Your task to perform on an android device: find photos in the google photos app Image 0: 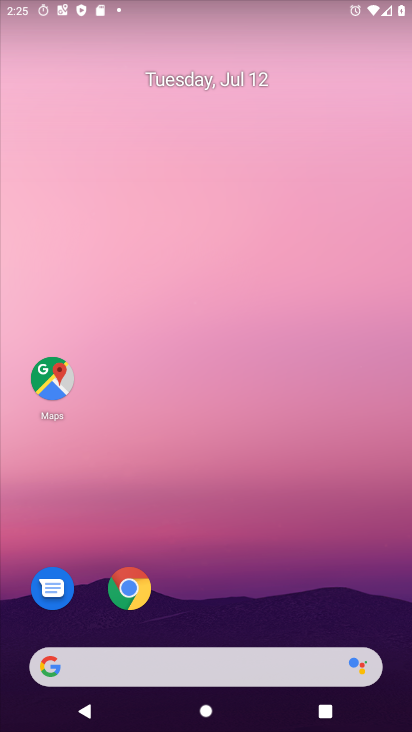
Step 0: click (247, 153)
Your task to perform on an android device: find photos in the google photos app Image 1: 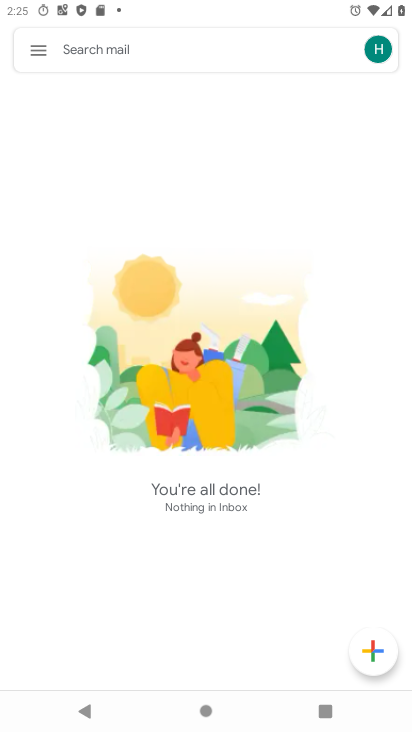
Step 1: press home button
Your task to perform on an android device: find photos in the google photos app Image 2: 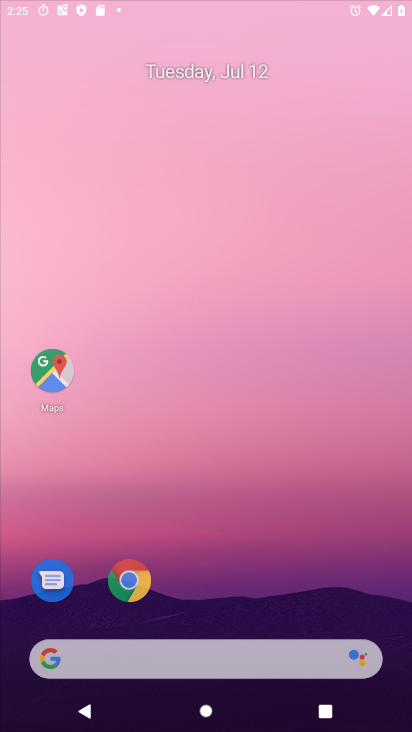
Step 2: drag from (231, 550) to (293, 97)
Your task to perform on an android device: find photos in the google photos app Image 3: 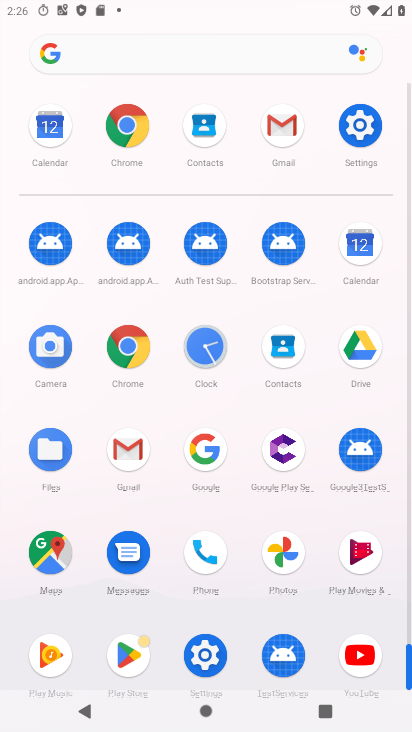
Step 3: click (290, 558)
Your task to perform on an android device: find photos in the google photos app Image 4: 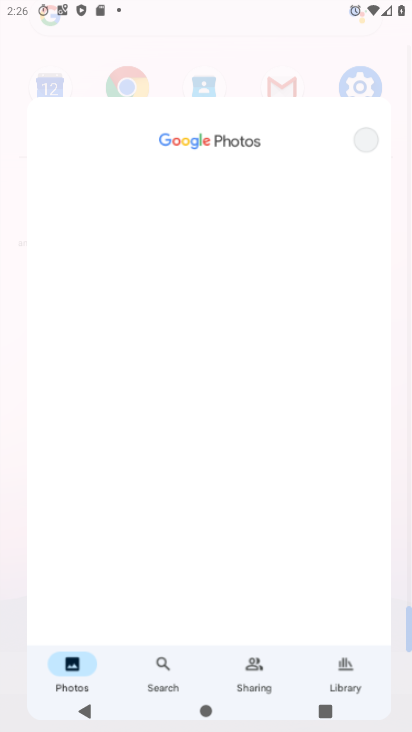
Step 4: click (289, 557)
Your task to perform on an android device: find photos in the google photos app Image 5: 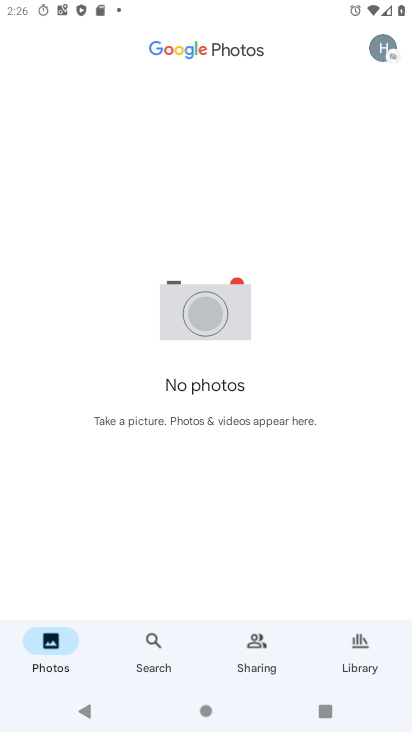
Step 5: drag from (235, 538) to (282, 331)
Your task to perform on an android device: find photos in the google photos app Image 6: 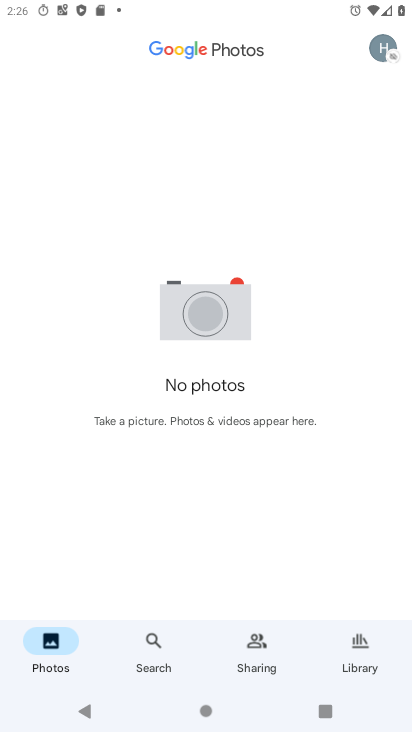
Step 6: drag from (225, 547) to (254, 254)
Your task to perform on an android device: find photos in the google photos app Image 7: 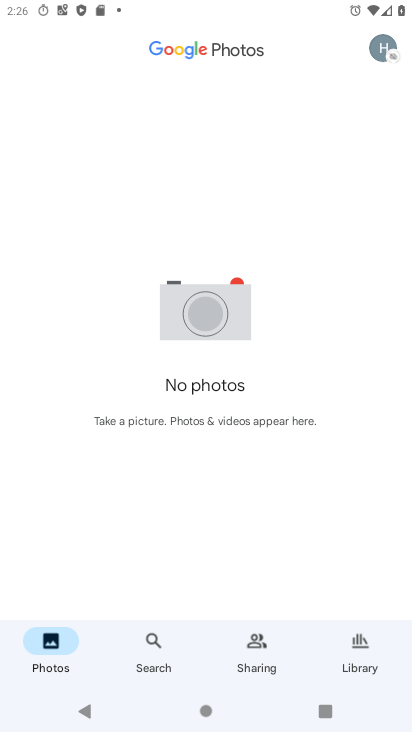
Step 7: drag from (191, 372) to (199, 259)
Your task to perform on an android device: find photos in the google photos app Image 8: 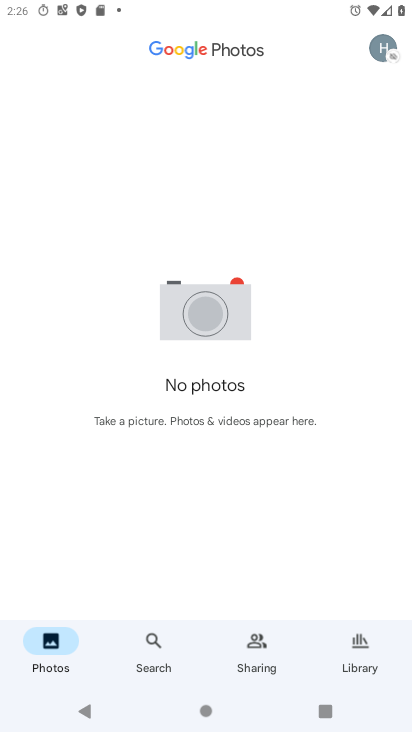
Step 8: click (218, 203)
Your task to perform on an android device: find photos in the google photos app Image 9: 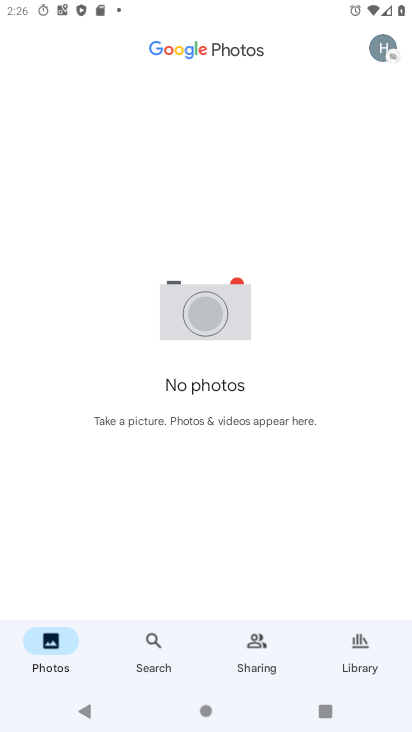
Step 9: drag from (162, 558) to (188, 358)
Your task to perform on an android device: find photos in the google photos app Image 10: 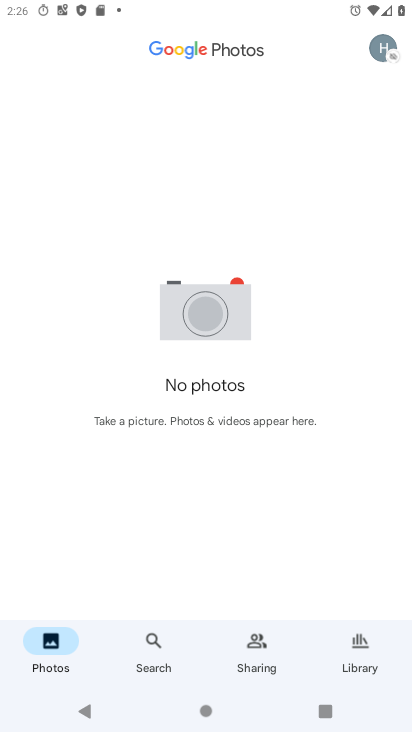
Step 10: click (46, 655)
Your task to perform on an android device: find photos in the google photos app Image 11: 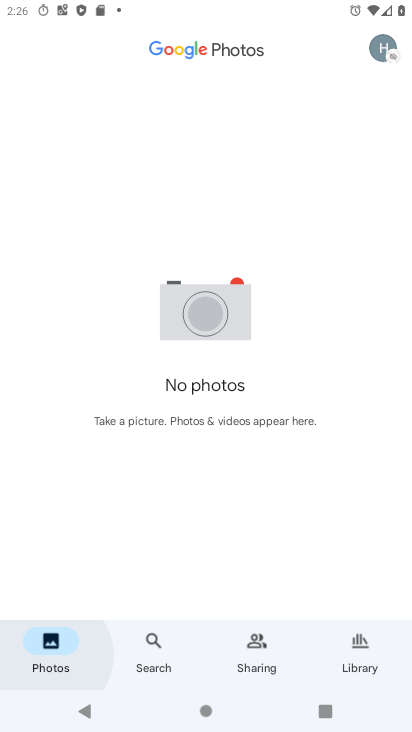
Step 11: drag from (115, 518) to (232, 266)
Your task to perform on an android device: find photos in the google photos app Image 12: 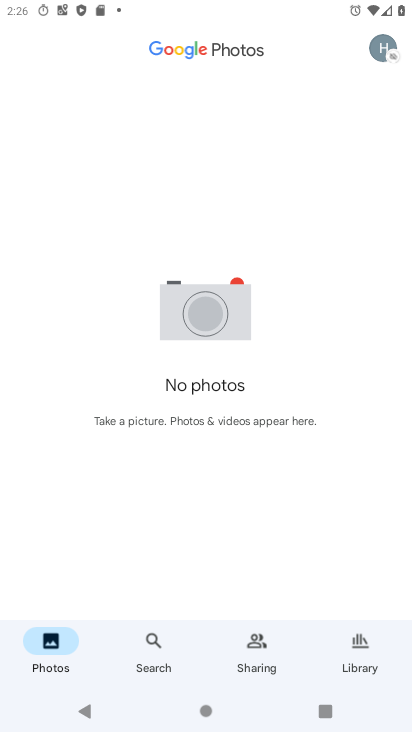
Step 12: click (287, 188)
Your task to perform on an android device: find photos in the google photos app Image 13: 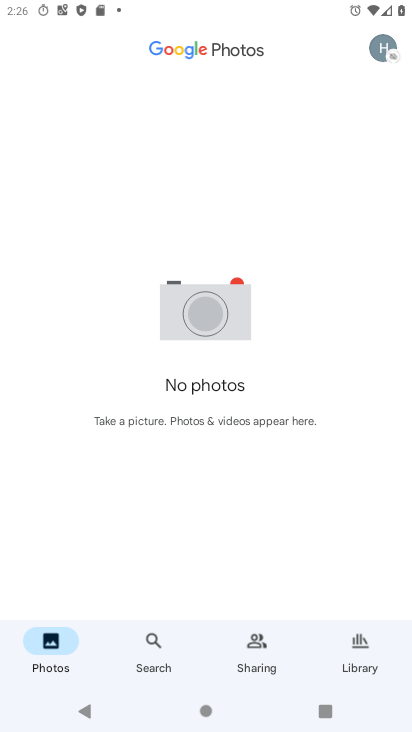
Step 13: click (286, 189)
Your task to perform on an android device: find photos in the google photos app Image 14: 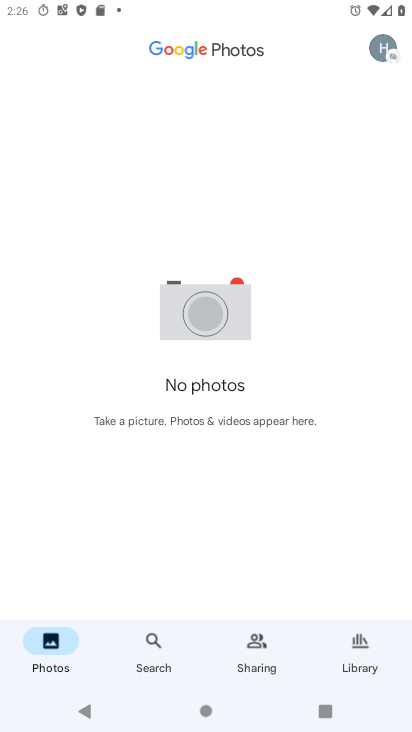
Step 14: task complete